Your task to perform on an android device: toggle pop-ups in chrome Image 0: 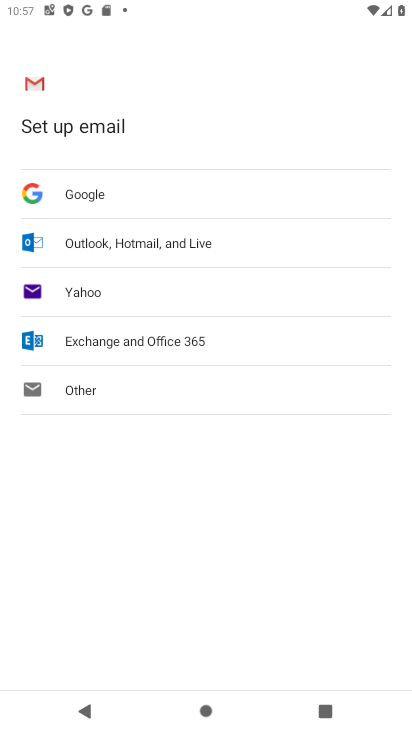
Step 0: press home button
Your task to perform on an android device: toggle pop-ups in chrome Image 1: 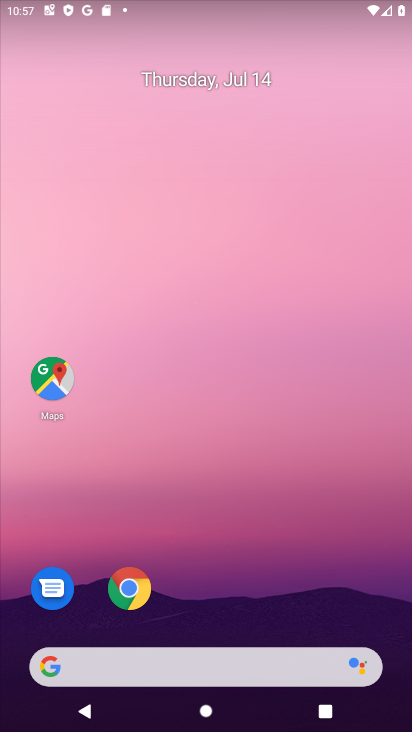
Step 1: click (133, 593)
Your task to perform on an android device: toggle pop-ups in chrome Image 2: 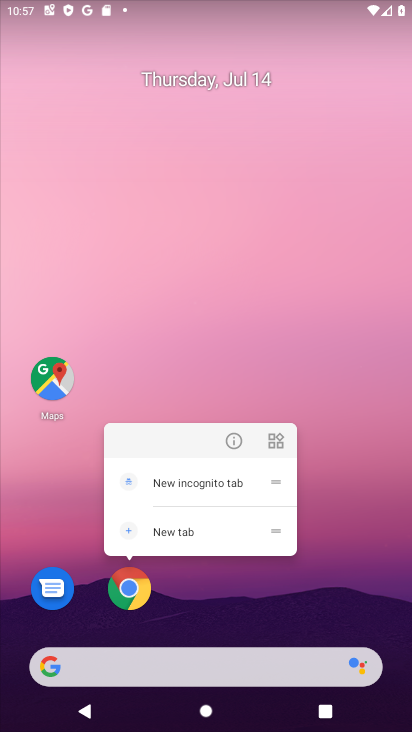
Step 2: click (139, 597)
Your task to perform on an android device: toggle pop-ups in chrome Image 3: 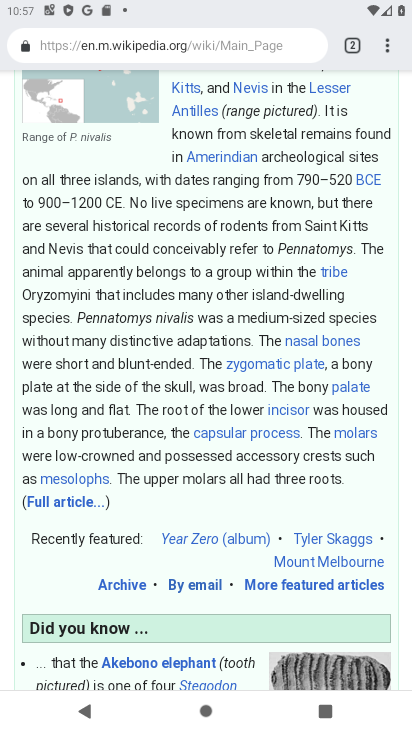
Step 3: drag from (386, 46) to (243, 559)
Your task to perform on an android device: toggle pop-ups in chrome Image 4: 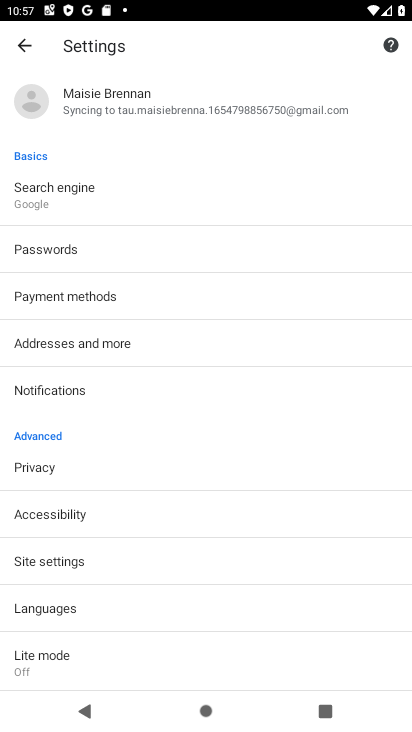
Step 4: click (71, 566)
Your task to perform on an android device: toggle pop-ups in chrome Image 5: 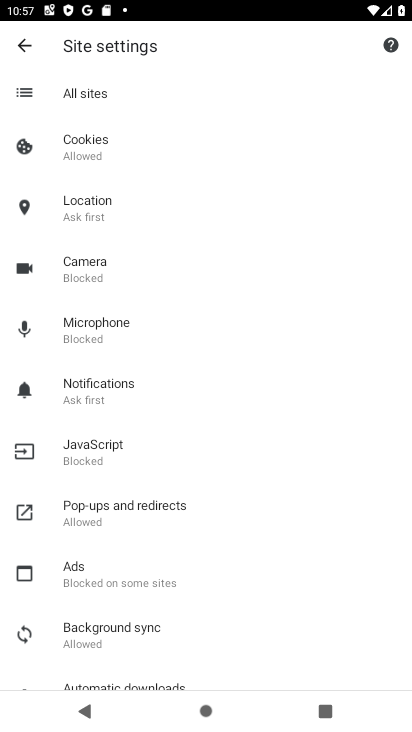
Step 5: click (120, 513)
Your task to perform on an android device: toggle pop-ups in chrome Image 6: 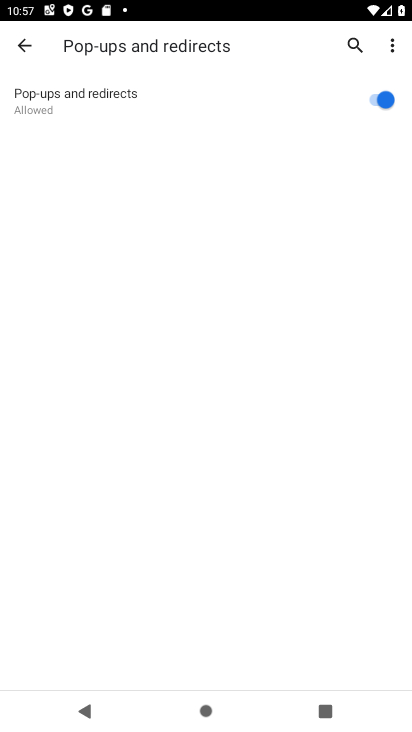
Step 6: click (375, 93)
Your task to perform on an android device: toggle pop-ups in chrome Image 7: 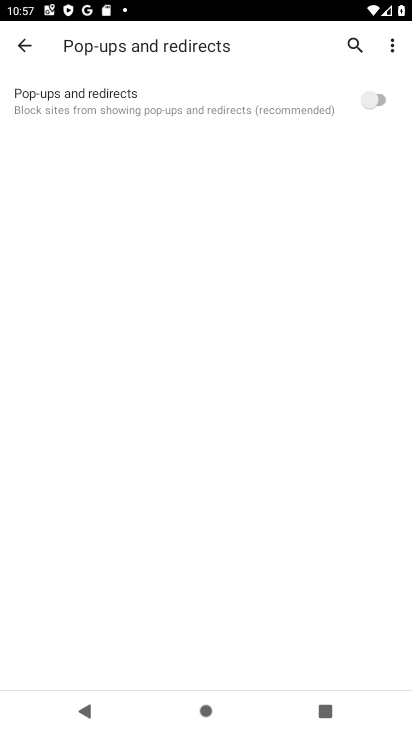
Step 7: task complete